Your task to perform on an android device: Open internet settings Image 0: 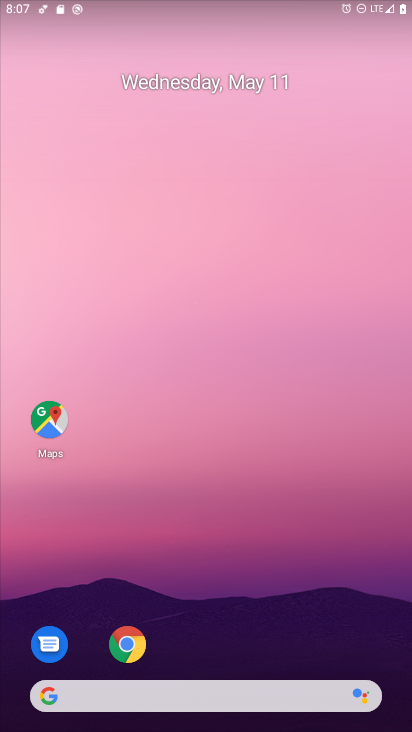
Step 0: drag from (252, 591) to (206, 146)
Your task to perform on an android device: Open internet settings Image 1: 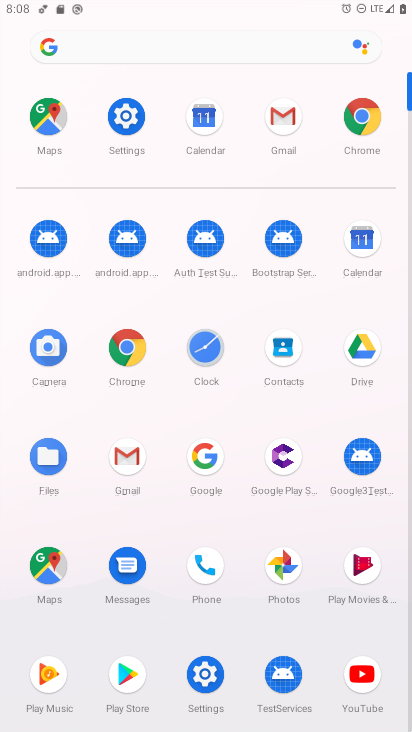
Step 1: click (121, 114)
Your task to perform on an android device: Open internet settings Image 2: 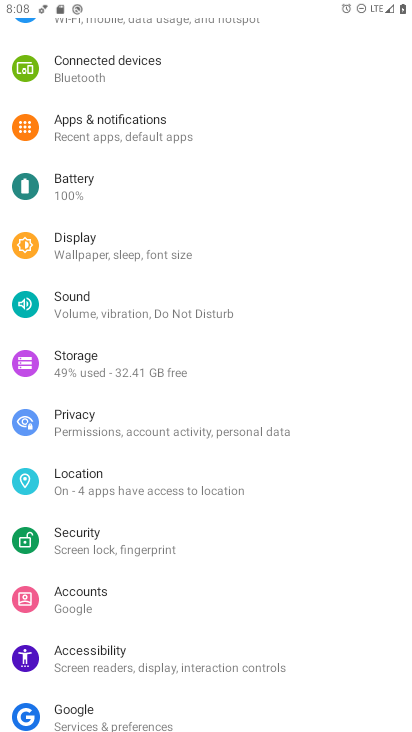
Step 2: drag from (209, 162) to (222, 722)
Your task to perform on an android device: Open internet settings Image 3: 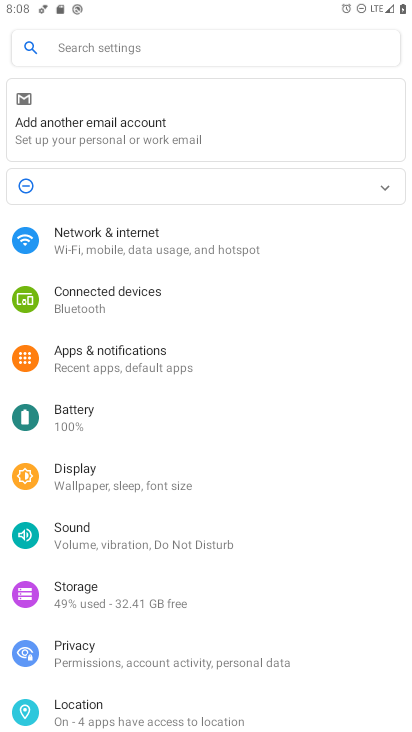
Step 3: click (93, 220)
Your task to perform on an android device: Open internet settings Image 4: 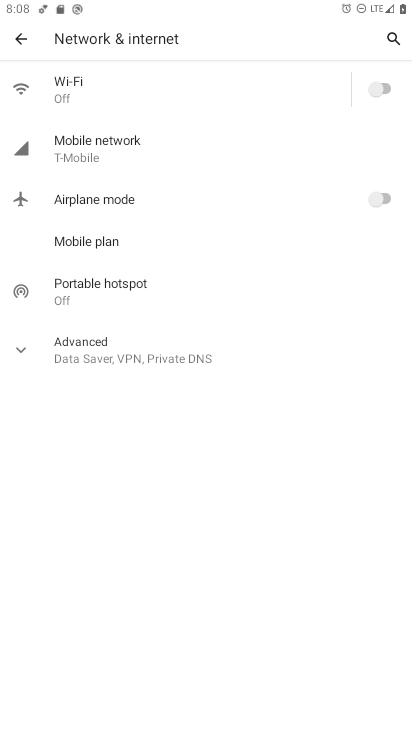
Step 4: task complete